Your task to perform on an android device: Show the shopping cart on ebay. Add alienware aurora to the cart on ebay, then select checkout. Image 0: 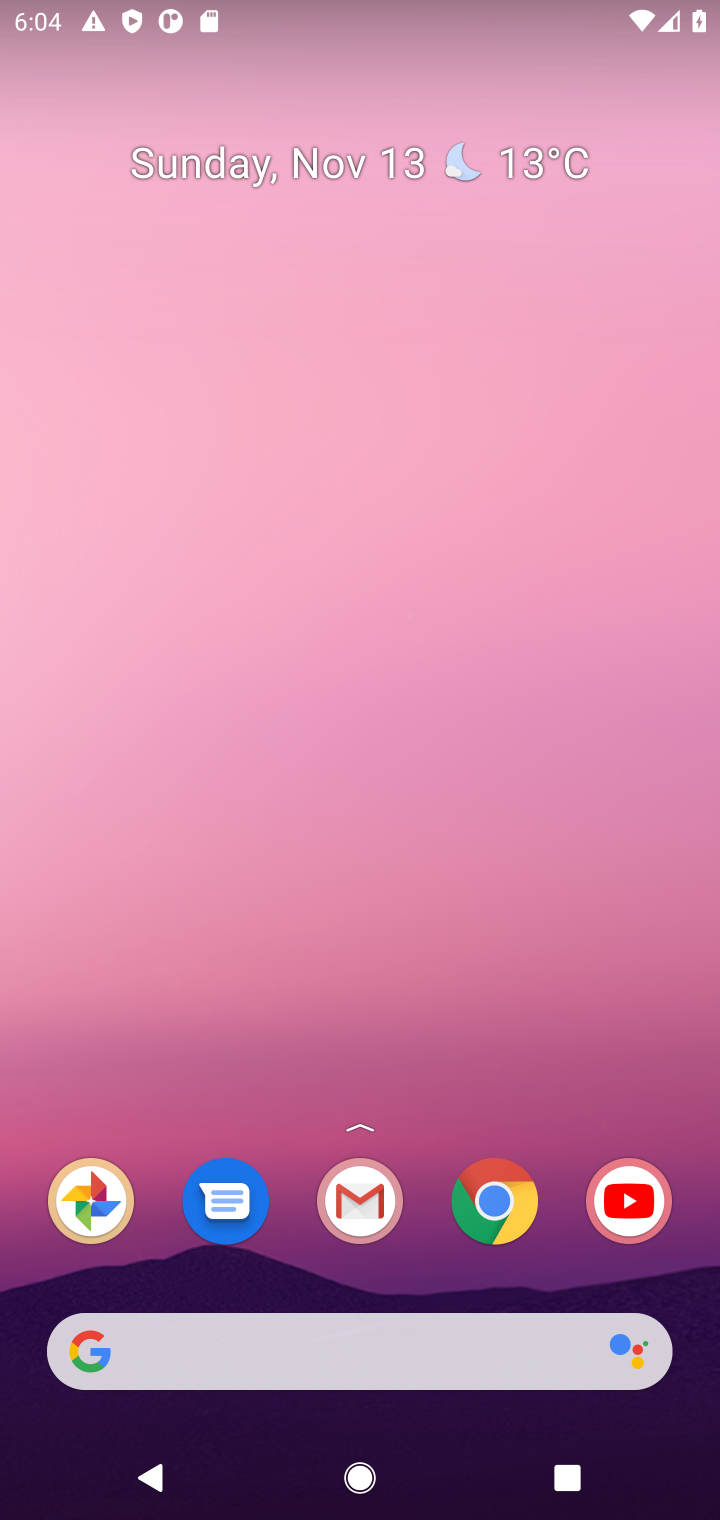
Step 0: drag from (426, 1287) to (364, 350)
Your task to perform on an android device: Show the shopping cart on ebay. Add alienware aurora to the cart on ebay, then select checkout. Image 1: 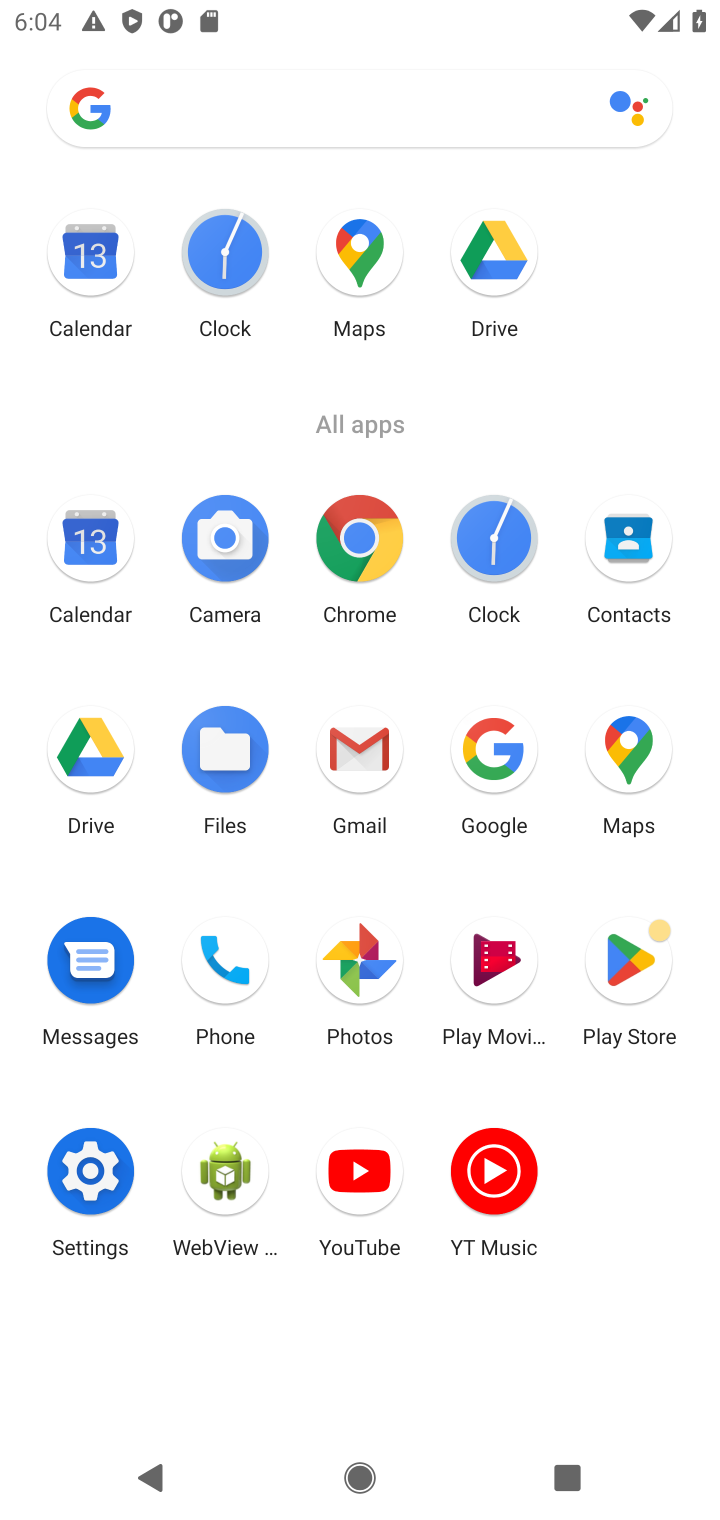
Step 1: click (361, 532)
Your task to perform on an android device: Show the shopping cart on ebay. Add alienware aurora to the cart on ebay, then select checkout. Image 2: 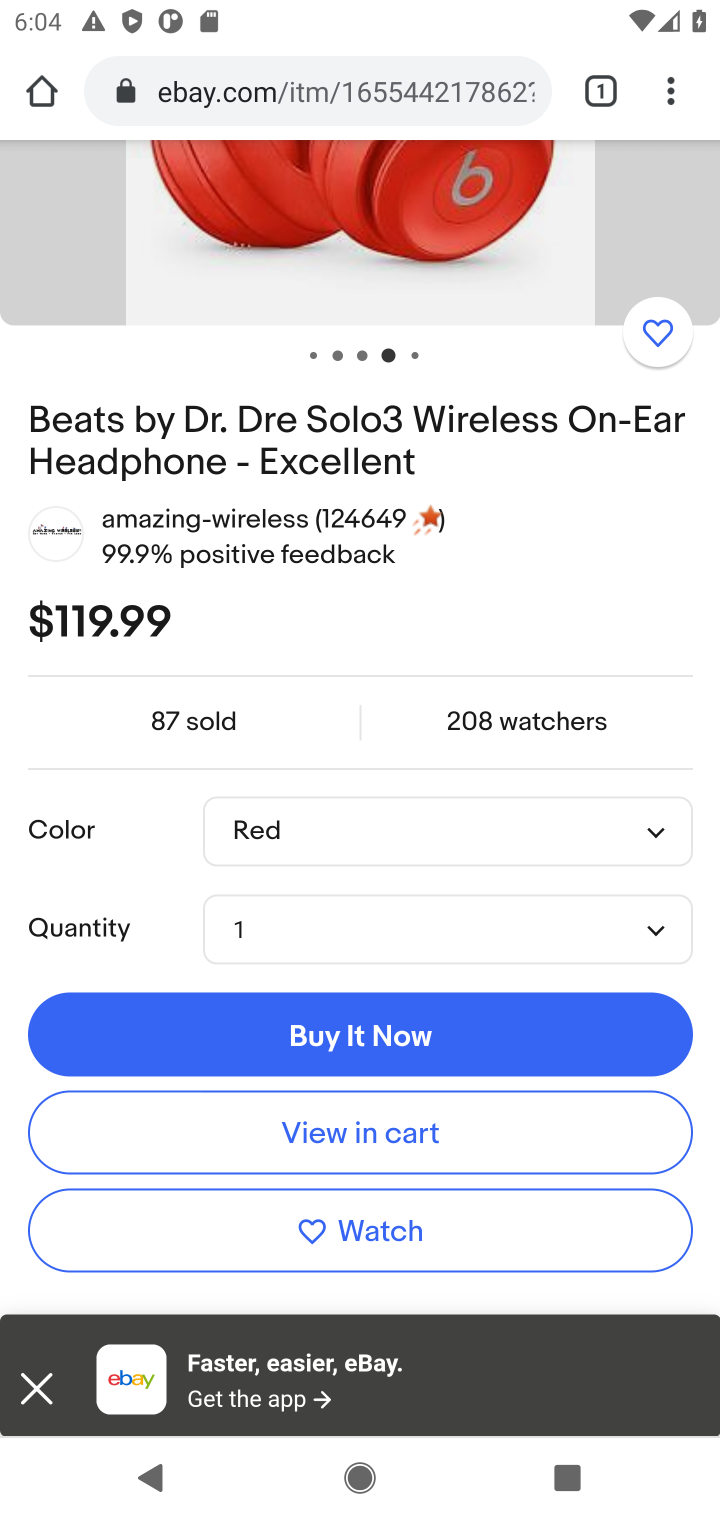
Step 2: click (438, 78)
Your task to perform on an android device: Show the shopping cart on ebay. Add alienware aurora to the cart on ebay, then select checkout. Image 3: 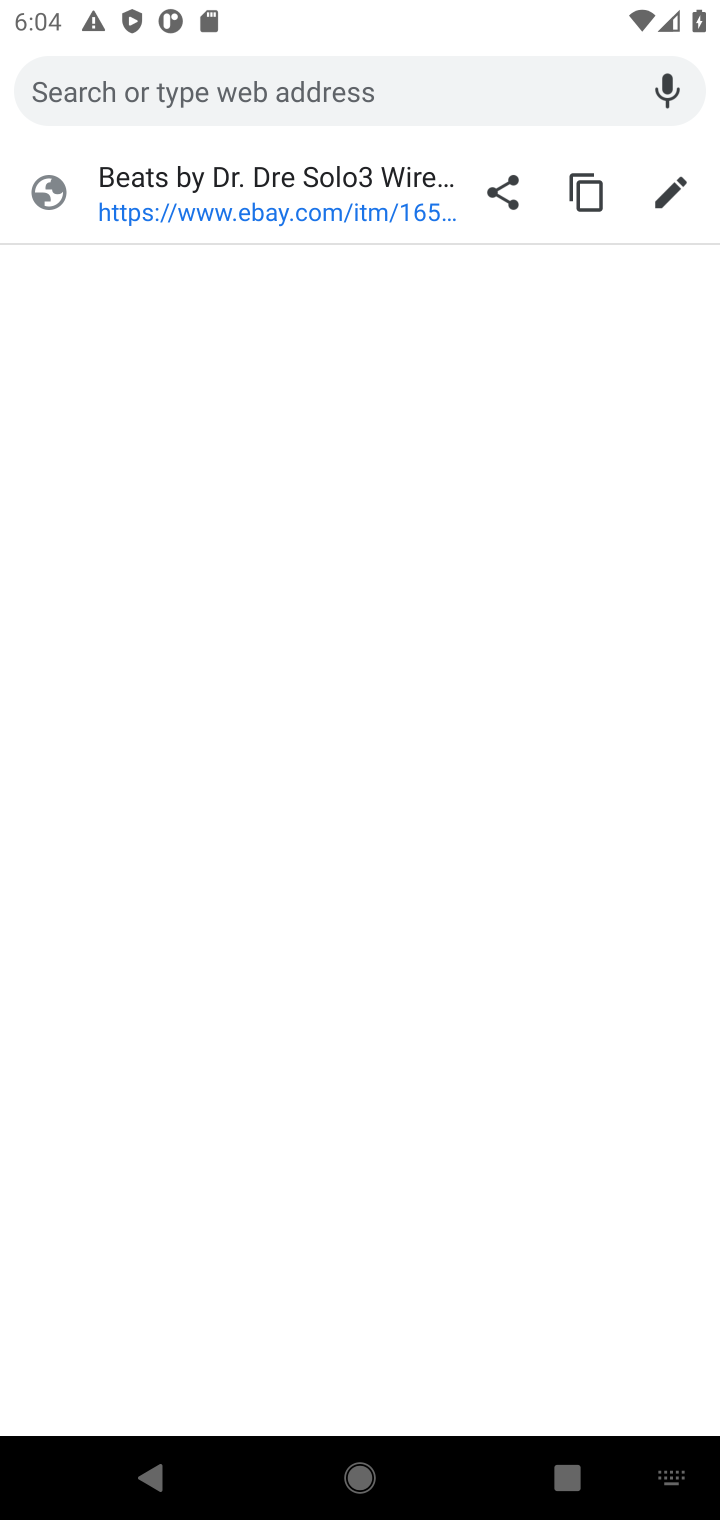
Step 3: type "ebay.com"
Your task to perform on an android device: Show the shopping cart on ebay. Add alienware aurora to the cart on ebay, then select checkout. Image 4: 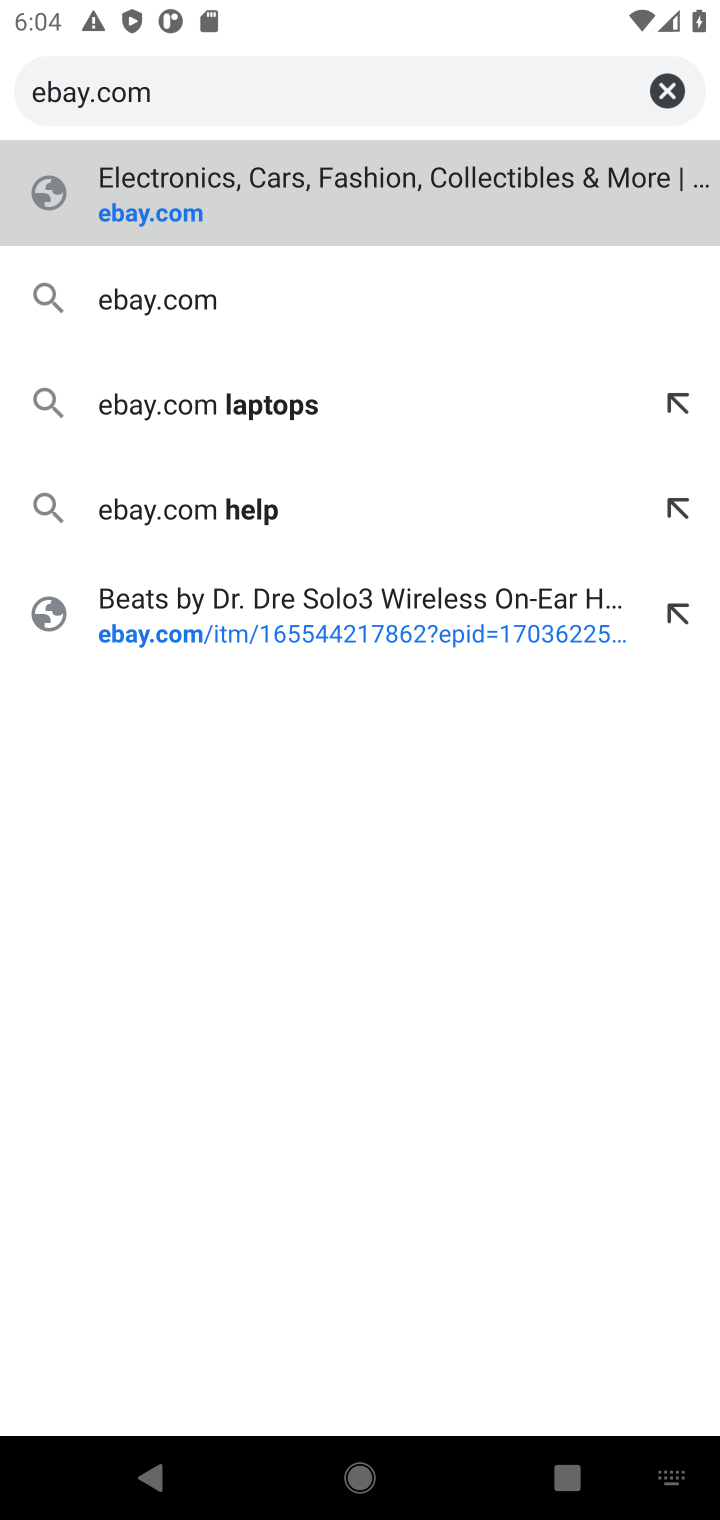
Step 4: press enter
Your task to perform on an android device: Show the shopping cart on ebay. Add alienware aurora to the cart on ebay, then select checkout. Image 5: 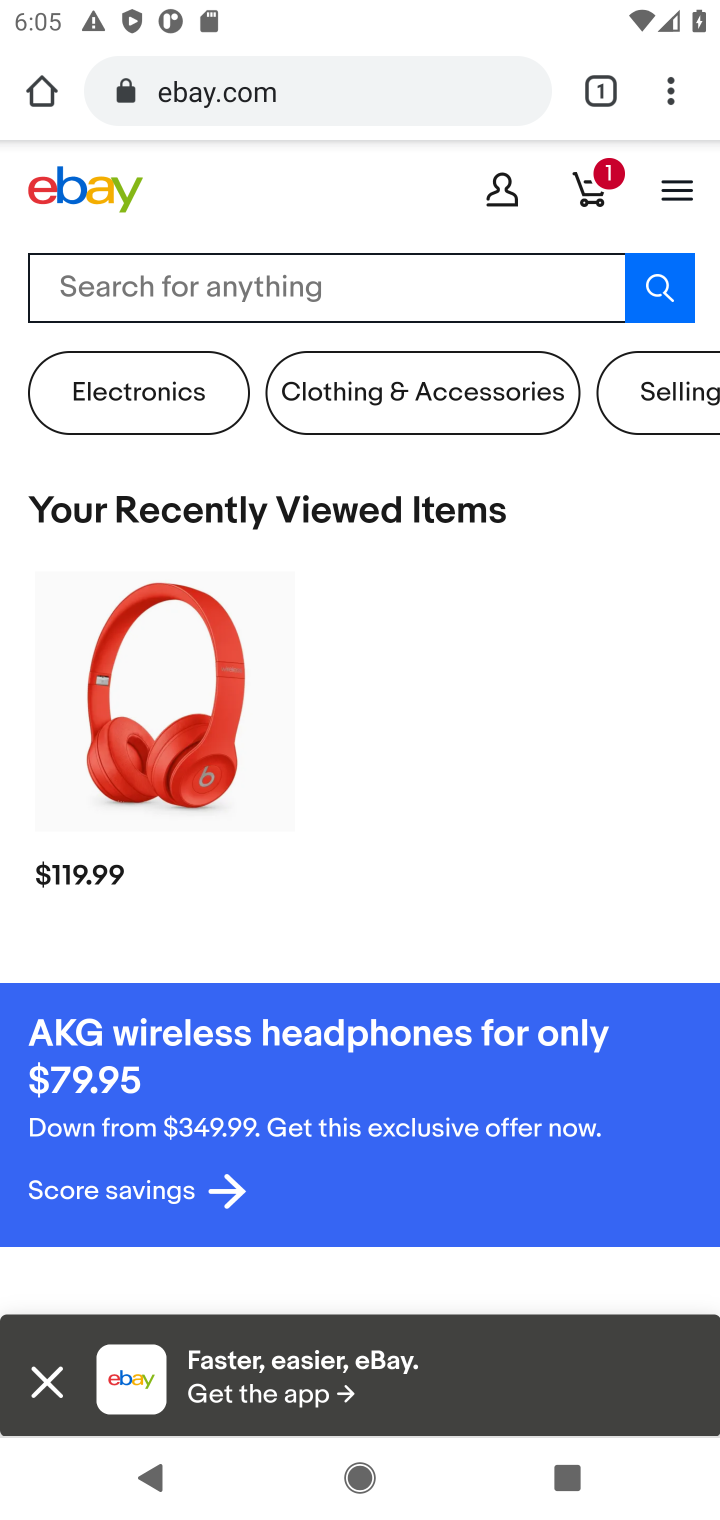
Step 5: click (317, 280)
Your task to perform on an android device: Show the shopping cart on ebay. Add alienware aurora to the cart on ebay, then select checkout. Image 6: 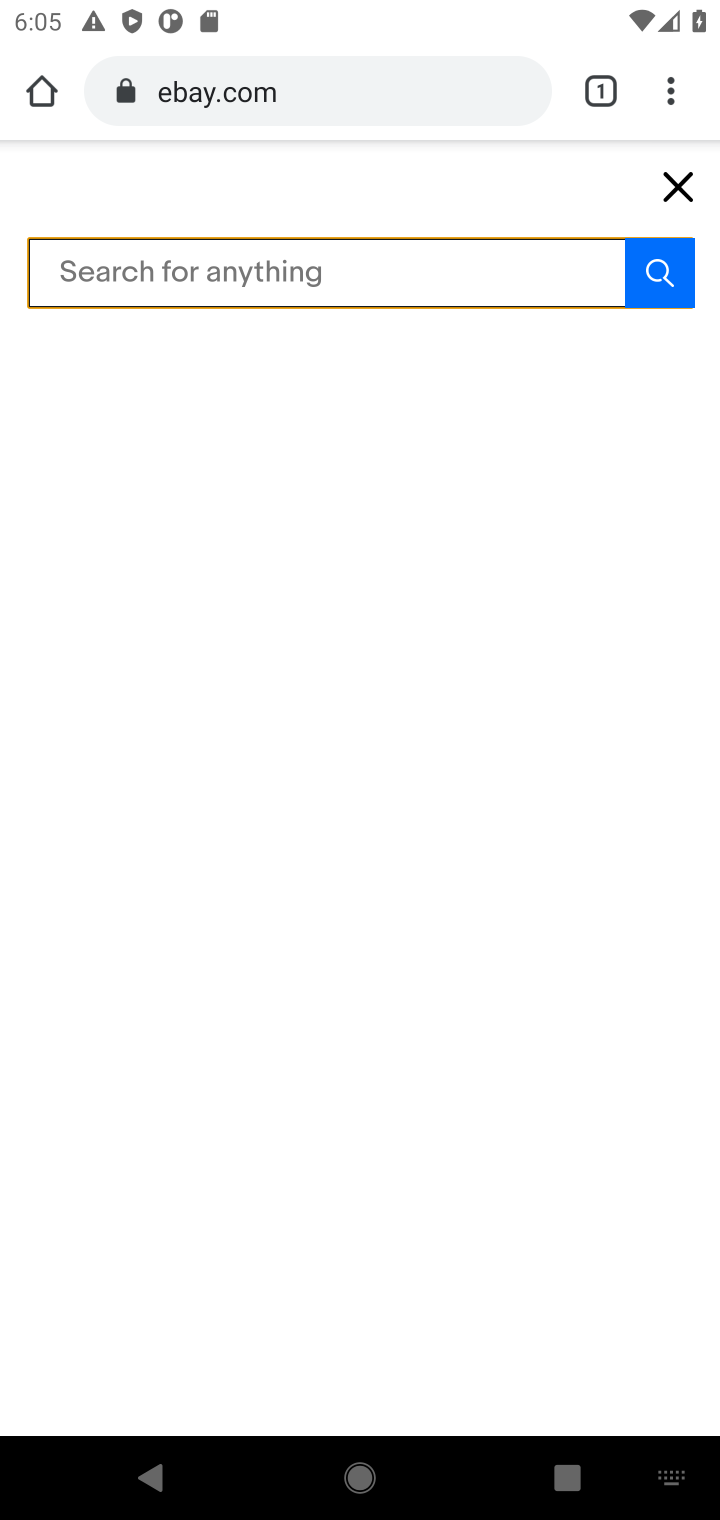
Step 6: type "alienware aurora"
Your task to perform on an android device: Show the shopping cart on ebay. Add alienware aurora to the cart on ebay, then select checkout. Image 7: 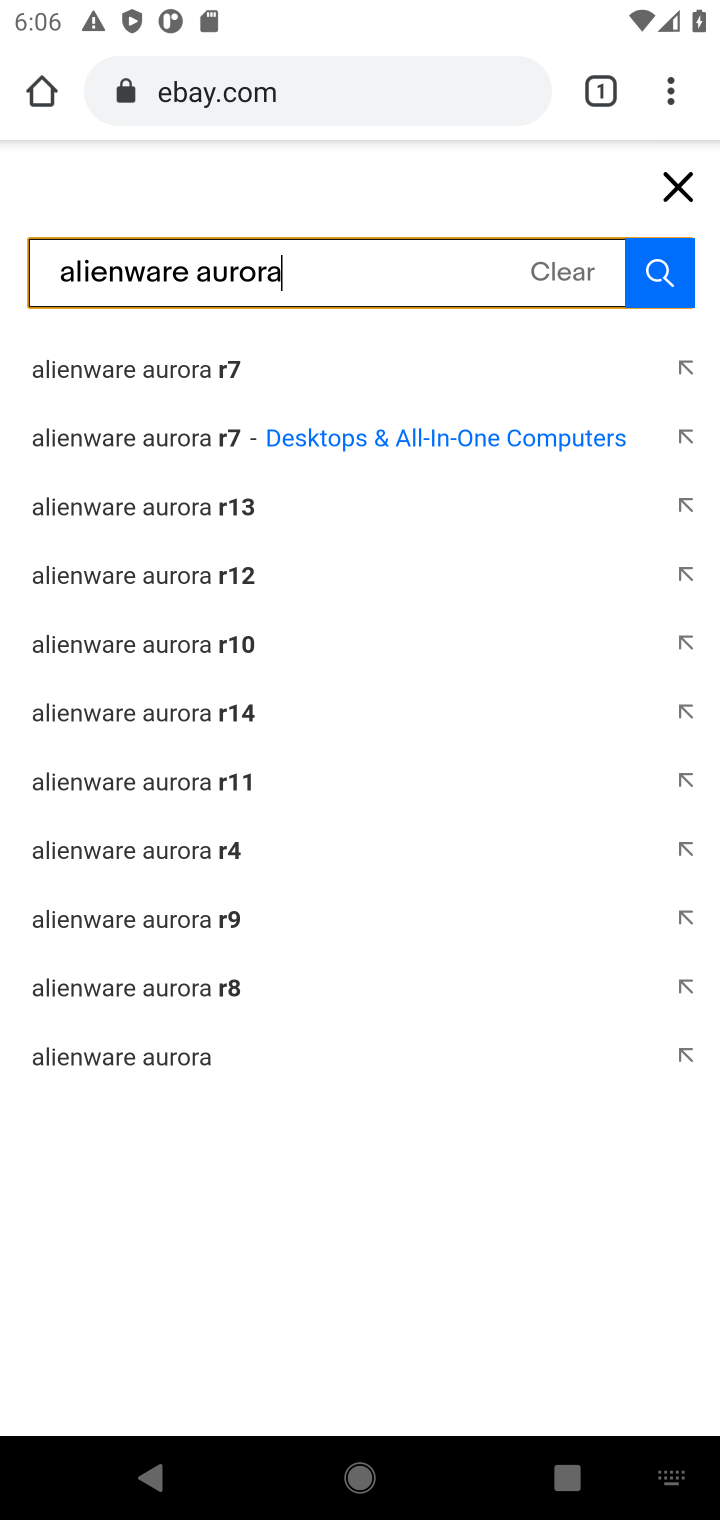
Step 7: click (662, 262)
Your task to perform on an android device: Show the shopping cart on ebay. Add alienware aurora to the cart on ebay, then select checkout. Image 8: 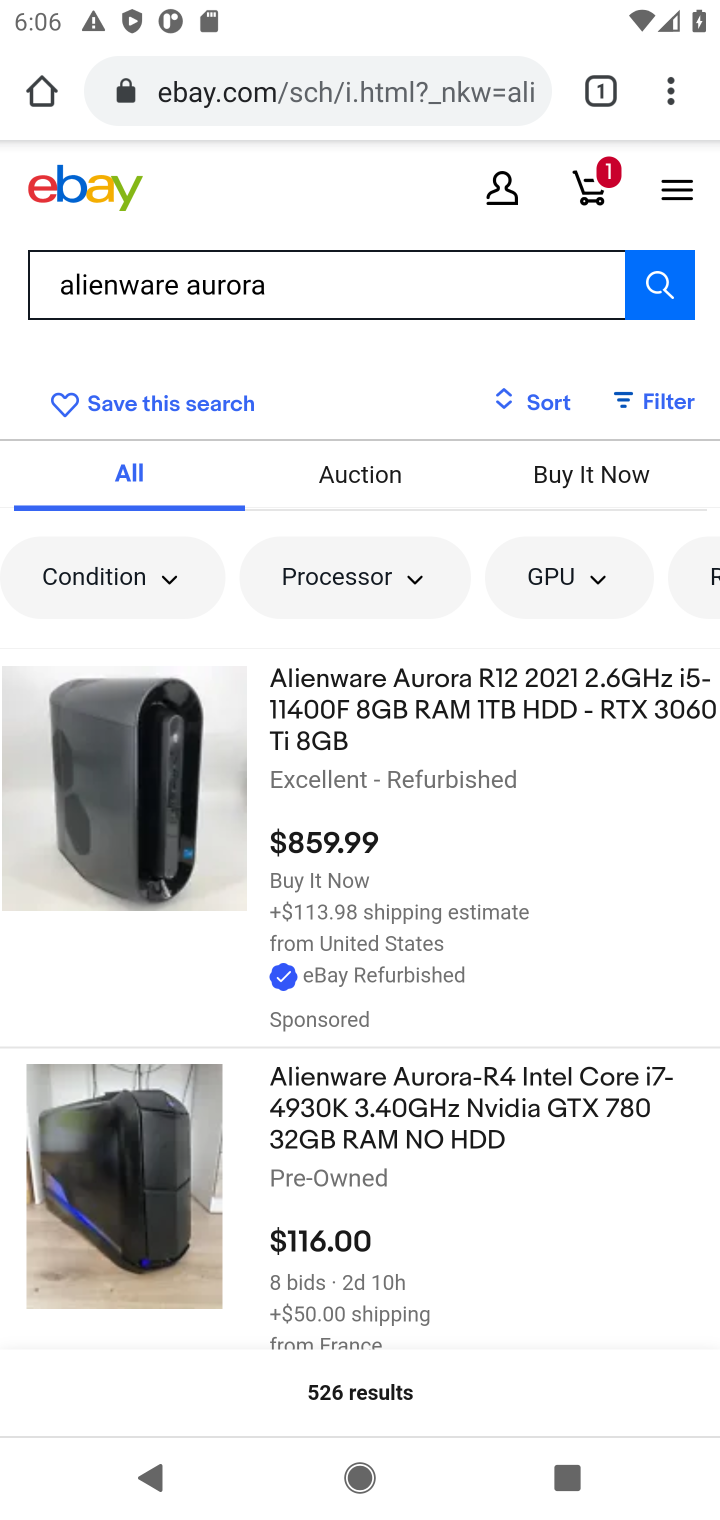
Step 8: click (602, 160)
Your task to perform on an android device: Show the shopping cart on ebay. Add alienware aurora to the cart on ebay, then select checkout. Image 9: 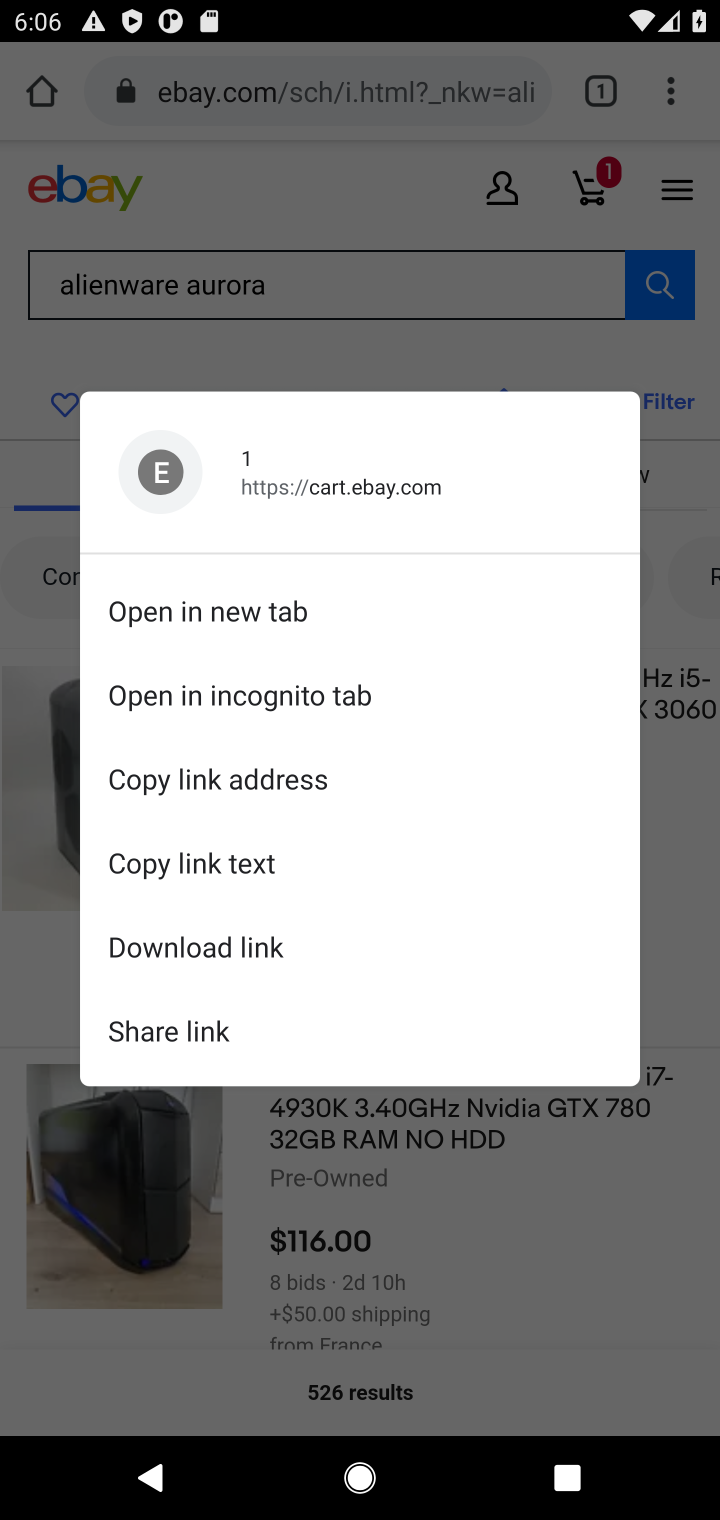
Step 9: click (560, 217)
Your task to perform on an android device: Show the shopping cart on ebay. Add alienware aurora to the cart on ebay, then select checkout. Image 10: 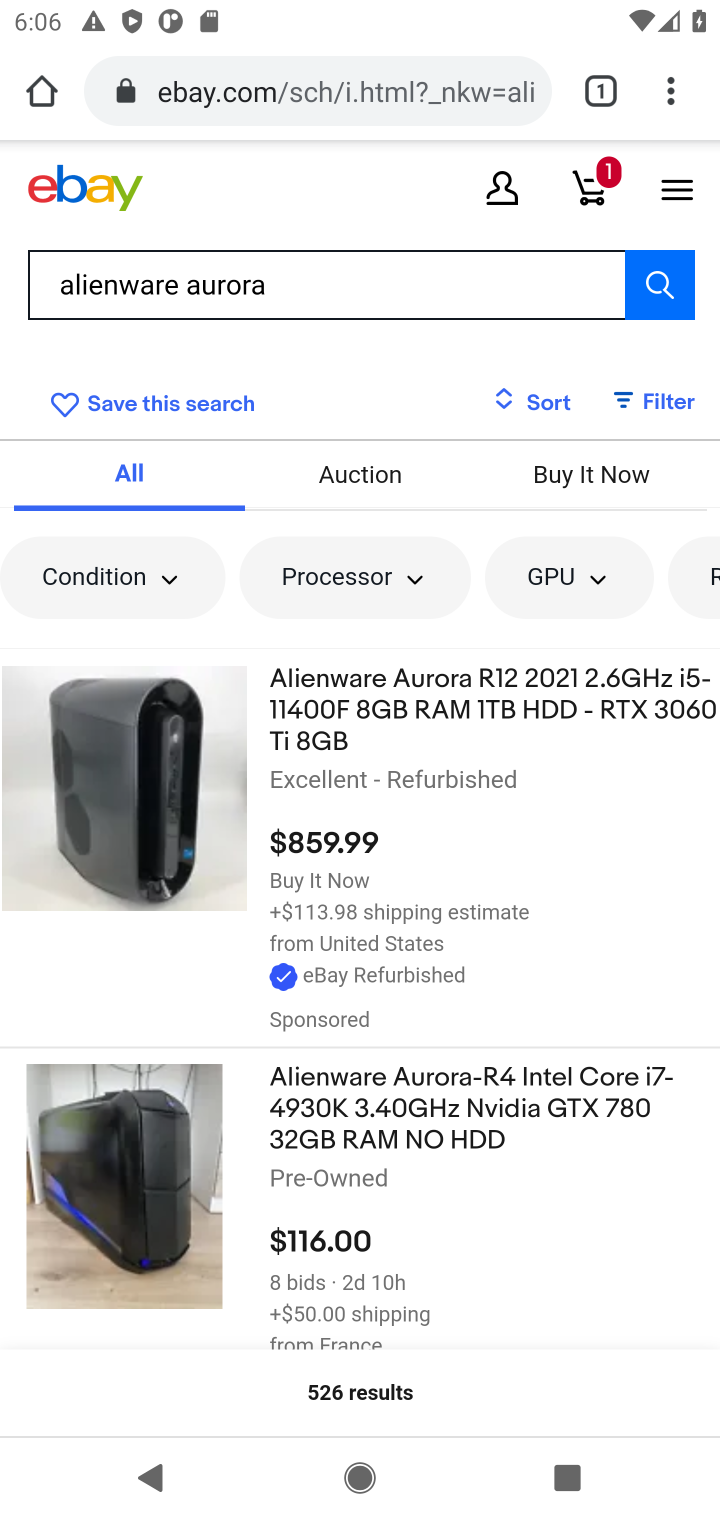
Step 10: click (594, 182)
Your task to perform on an android device: Show the shopping cart on ebay. Add alienware aurora to the cart on ebay, then select checkout. Image 11: 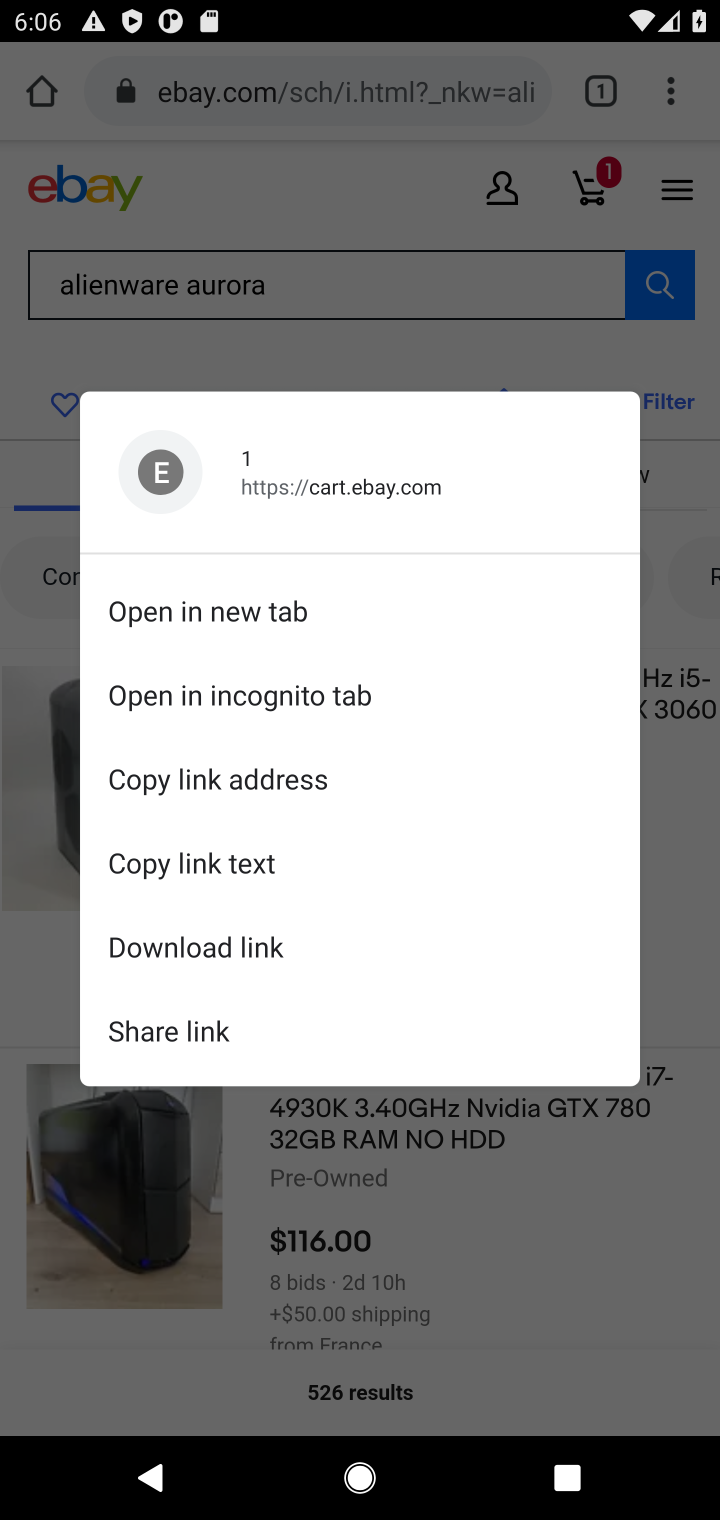
Step 11: click (594, 182)
Your task to perform on an android device: Show the shopping cart on ebay. Add alienware aurora to the cart on ebay, then select checkout. Image 12: 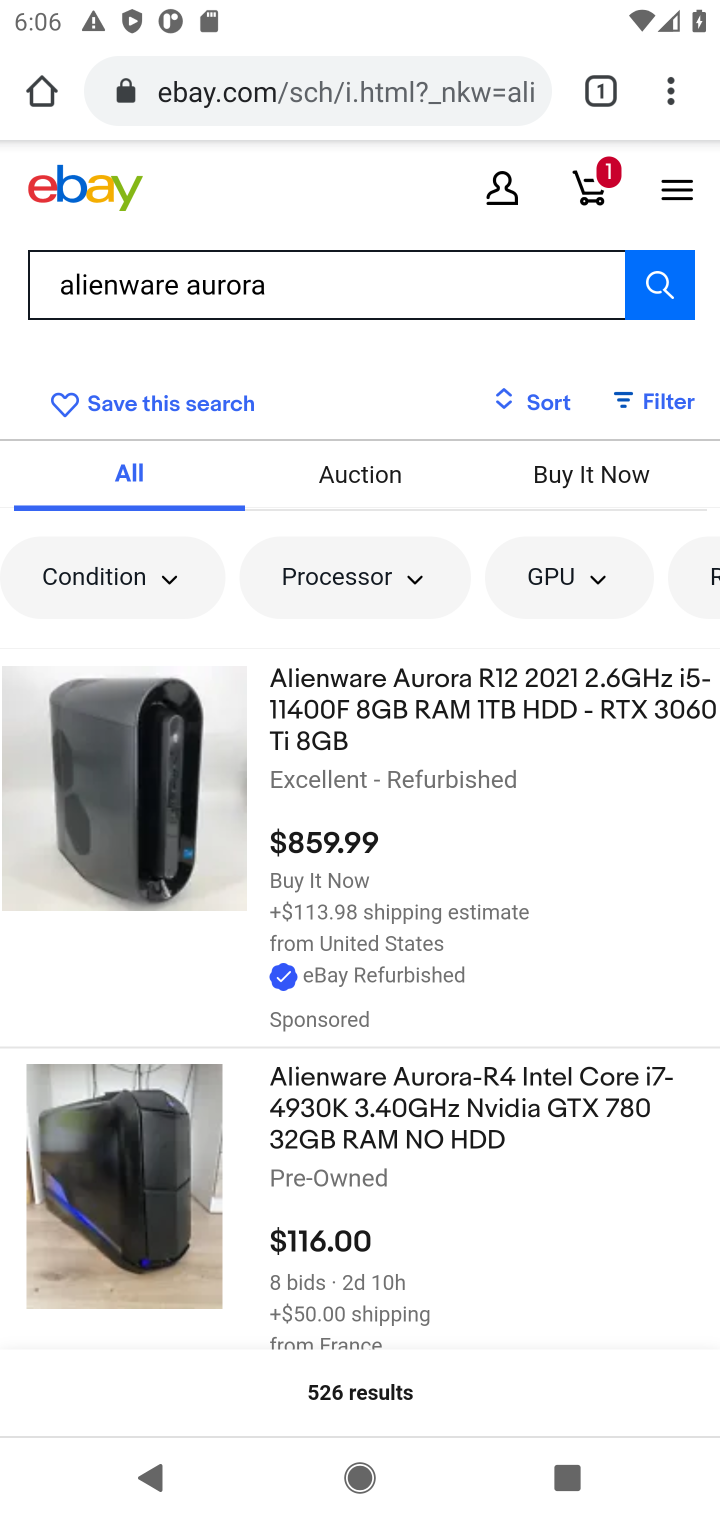
Step 12: click (602, 188)
Your task to perform on an android device: Show the shopping cart on ebay. Add alienware aurora to the cart on ebay, then select checkout. Image 13: 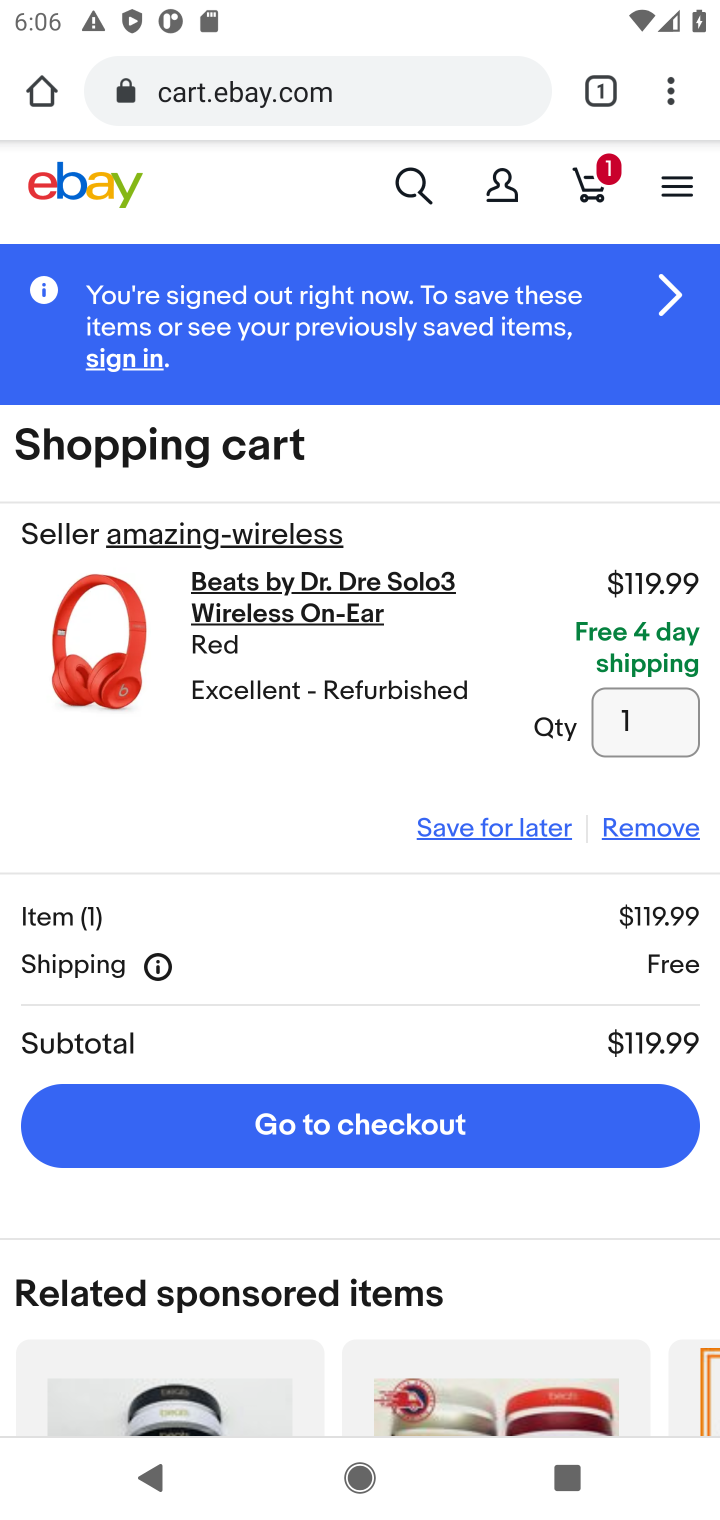
Step 13: click (421, 175)
Your task to perform on an android device: Show the shopping cart on ebay. Add alienware aurora to the cart on ebay, then select checkout. Image 14: 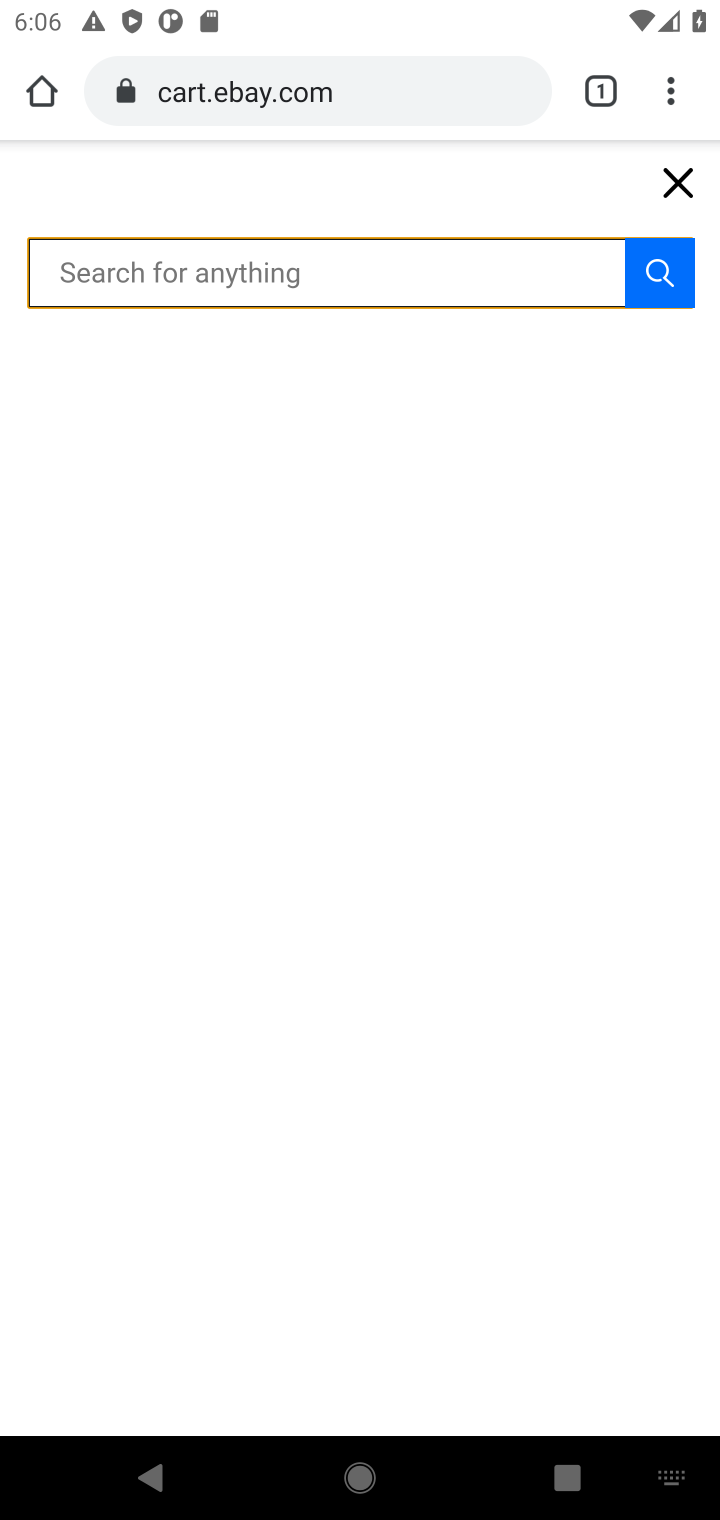
Step 14: click (375, 283)
Your task to perform on an android device: Show the shopping cart on ebay. Add alienware aurora to the cart on ebay, then select checkout. Image 15: 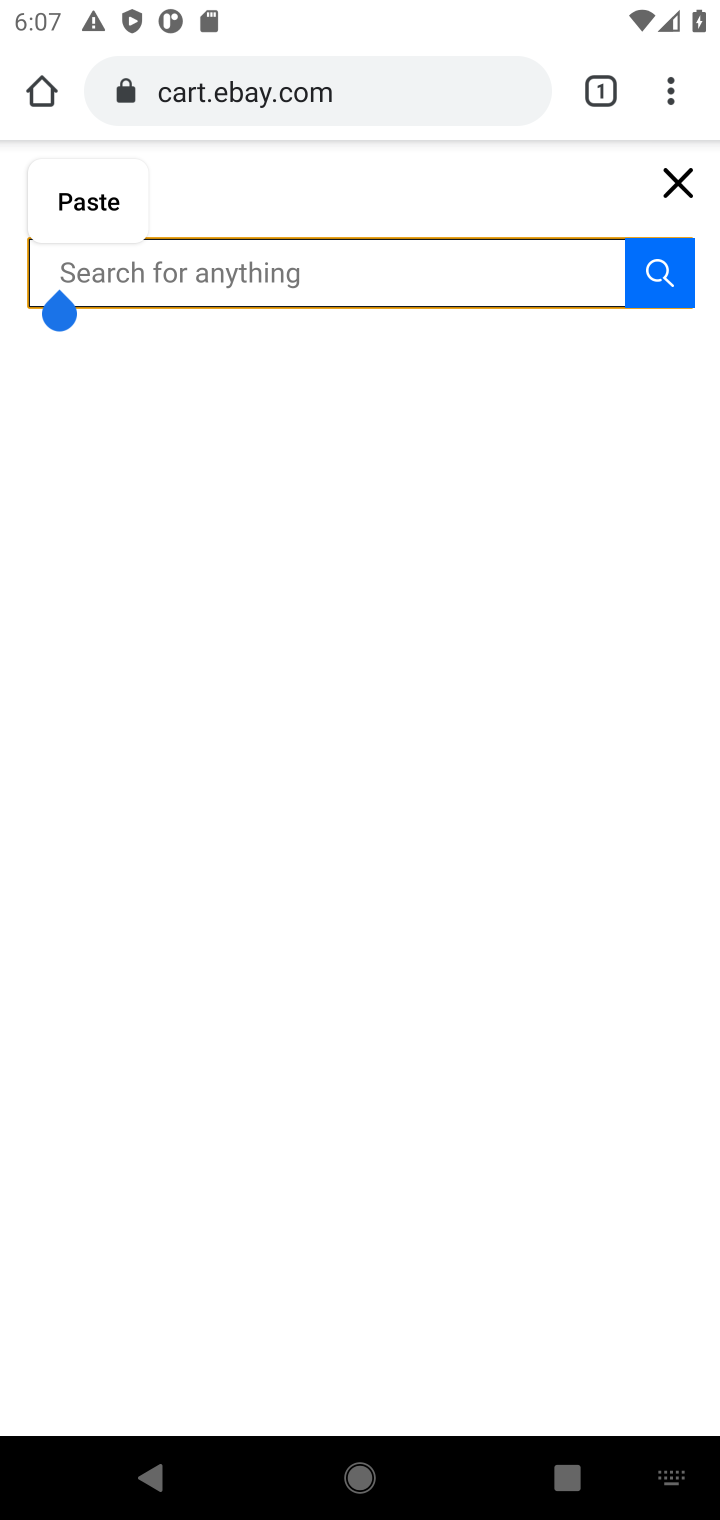
Step 15: type "alienware aurora"
Your task to perform on an android device: Show the shopping cart on ebay. Add alienware aurora to the cart on ebay, then select checkout. Image 16: 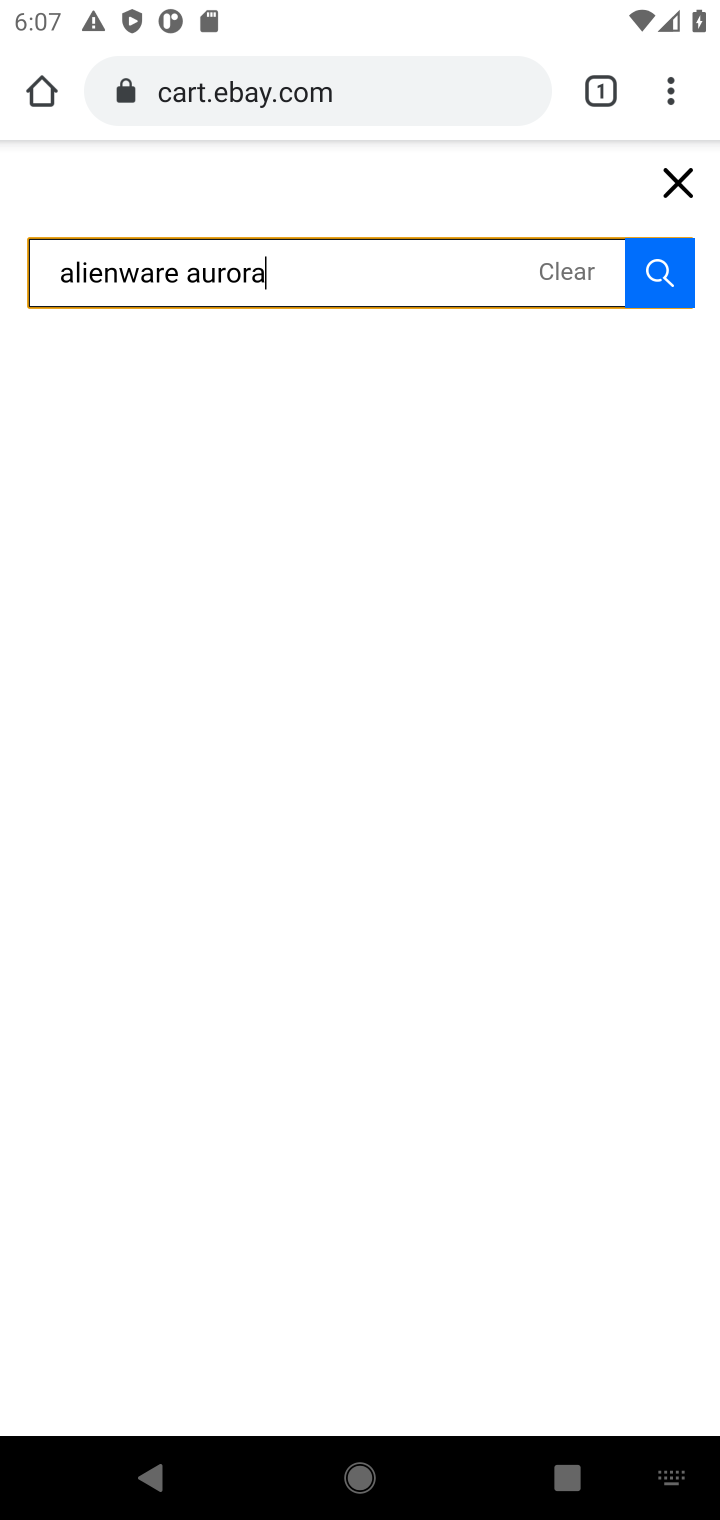
Step 16: press enter
Your task to perform on an android device: Show the shopping cart on ebay. Add alienware aurora to the cart on ebay, then select checkout. Image 17: 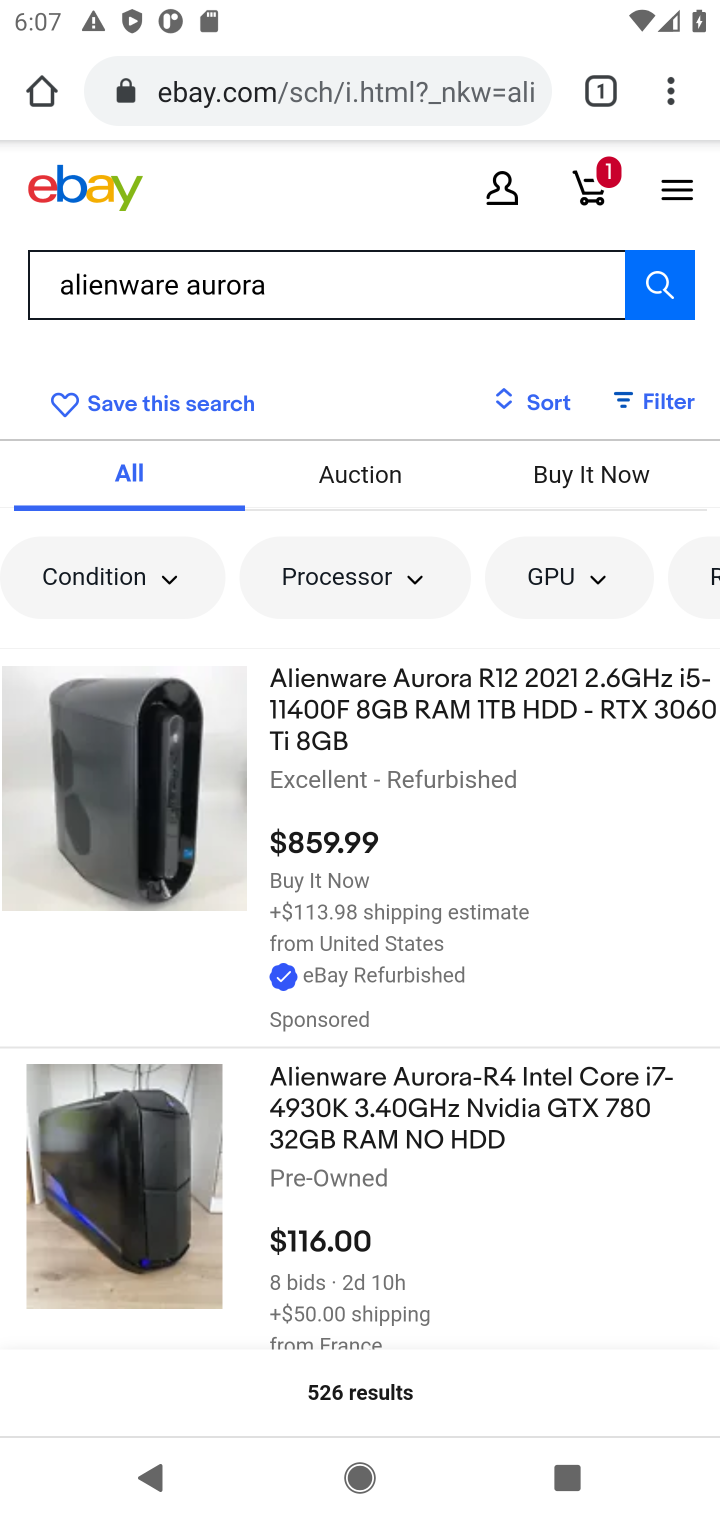
Step 17: drag from (484, 1311) to (495, 778)
Your task to perform on an android device: Show the shopping cart on ebay. Add alienware aurora to the cart on ebay, then select checkout. Image 18: 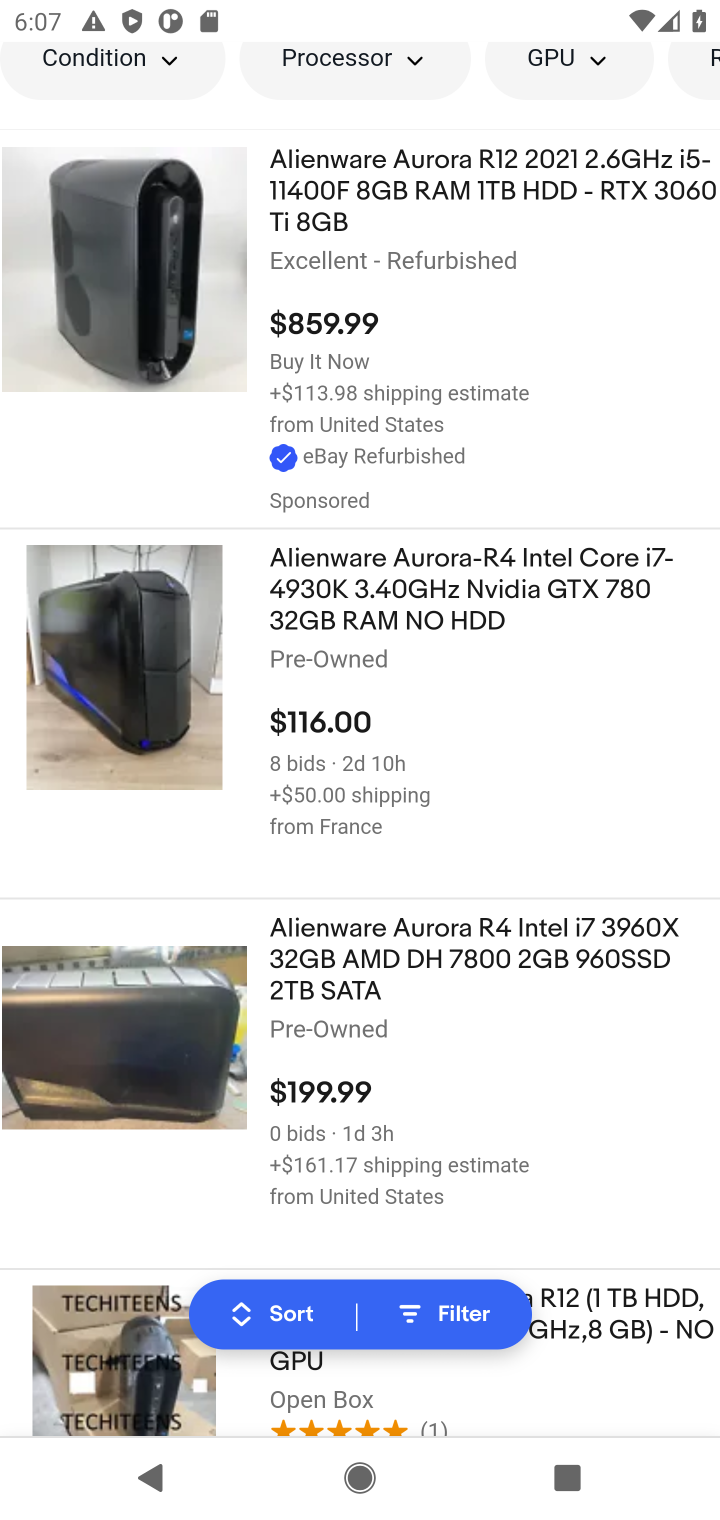
Step 18: click (398, 594)
Your task to perform on an android device: Show the shopping cart on ebay. Add alienware aurora to the cart on ebay, then select checkout. Image 19: 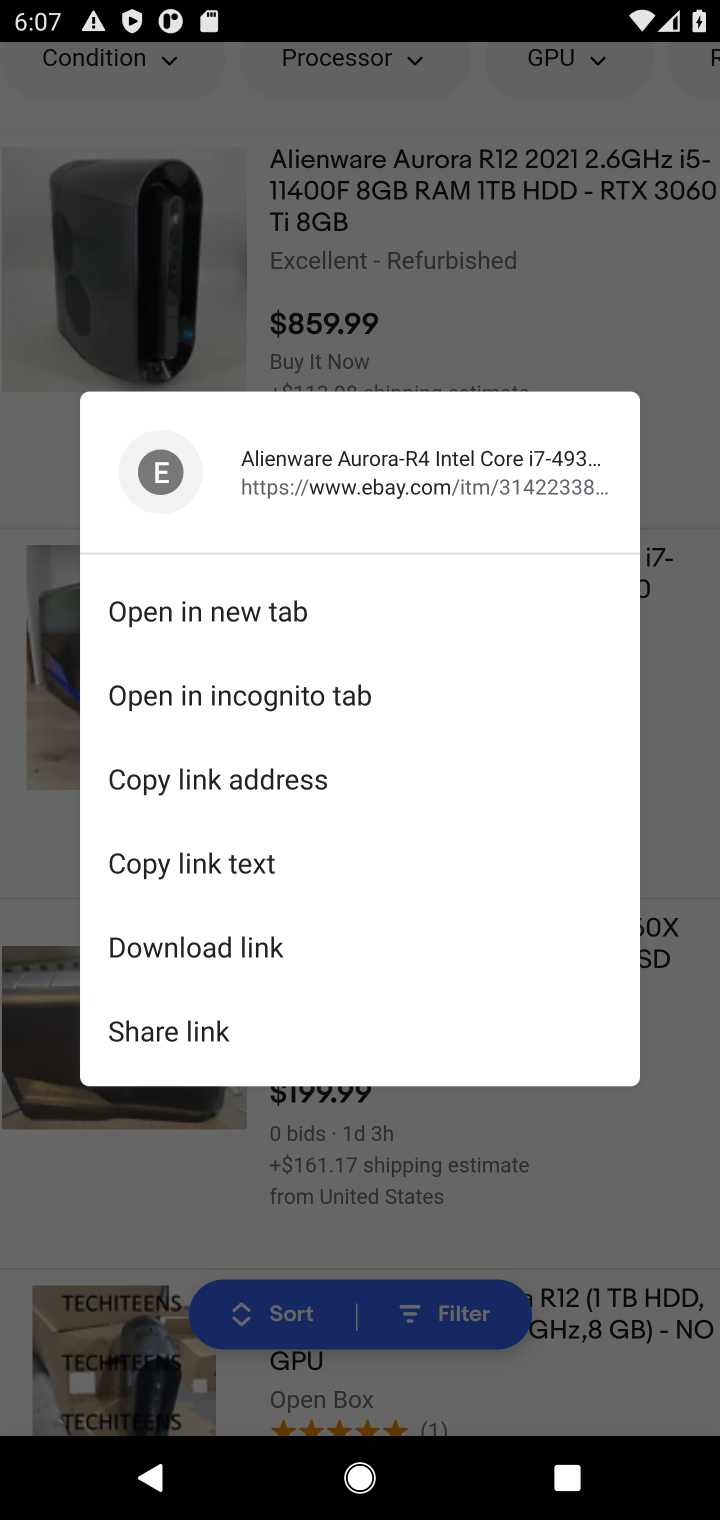
Step 19: click (420, 283)
Your task to perform on an android device: Show the shopping cart on ebay. Add alienware aurora to the cart on ebay, then select checkout. Image 20: 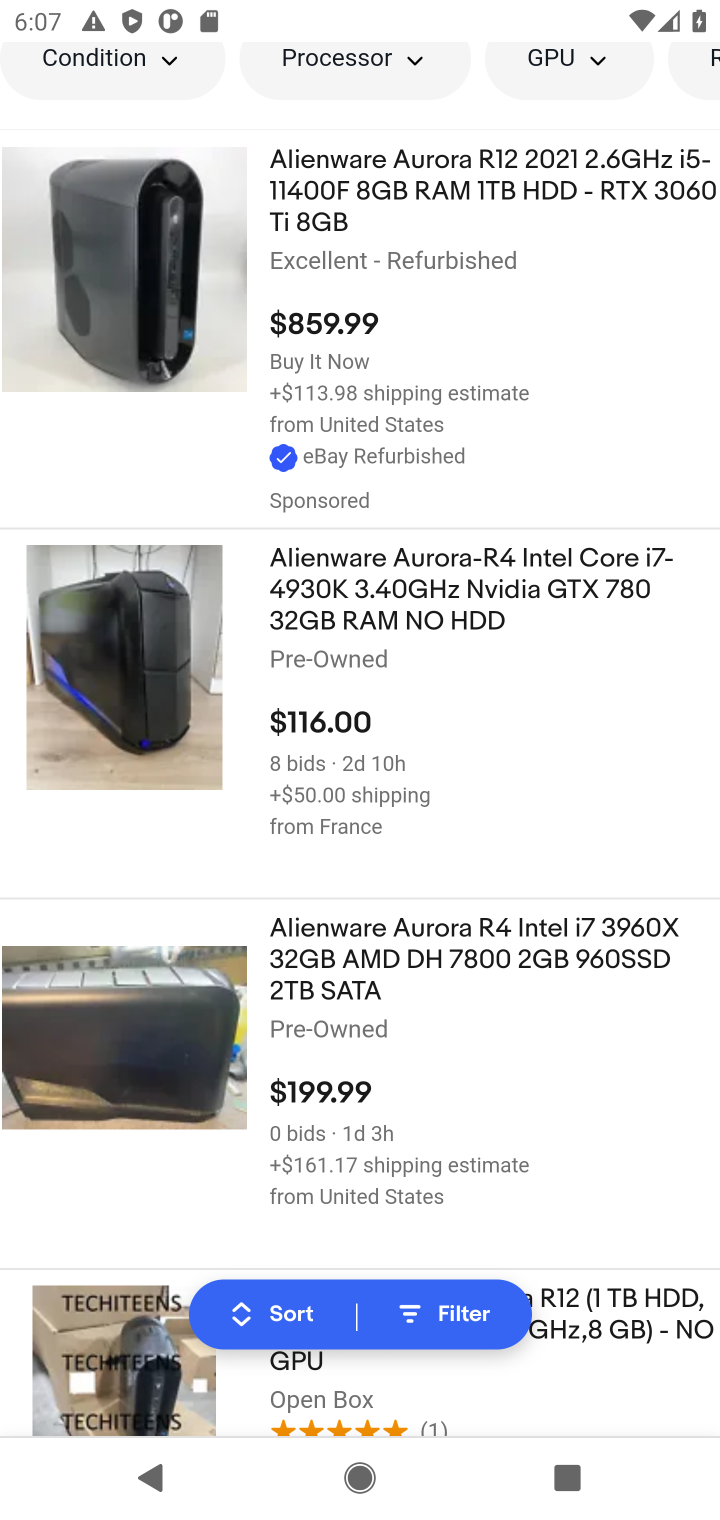
Step 20: click (398, 592)
Your task to perform on an android device: Show the shopping cart on ebay. Add alienware aurora to the cart on ebay, then select checkout. Image 21: 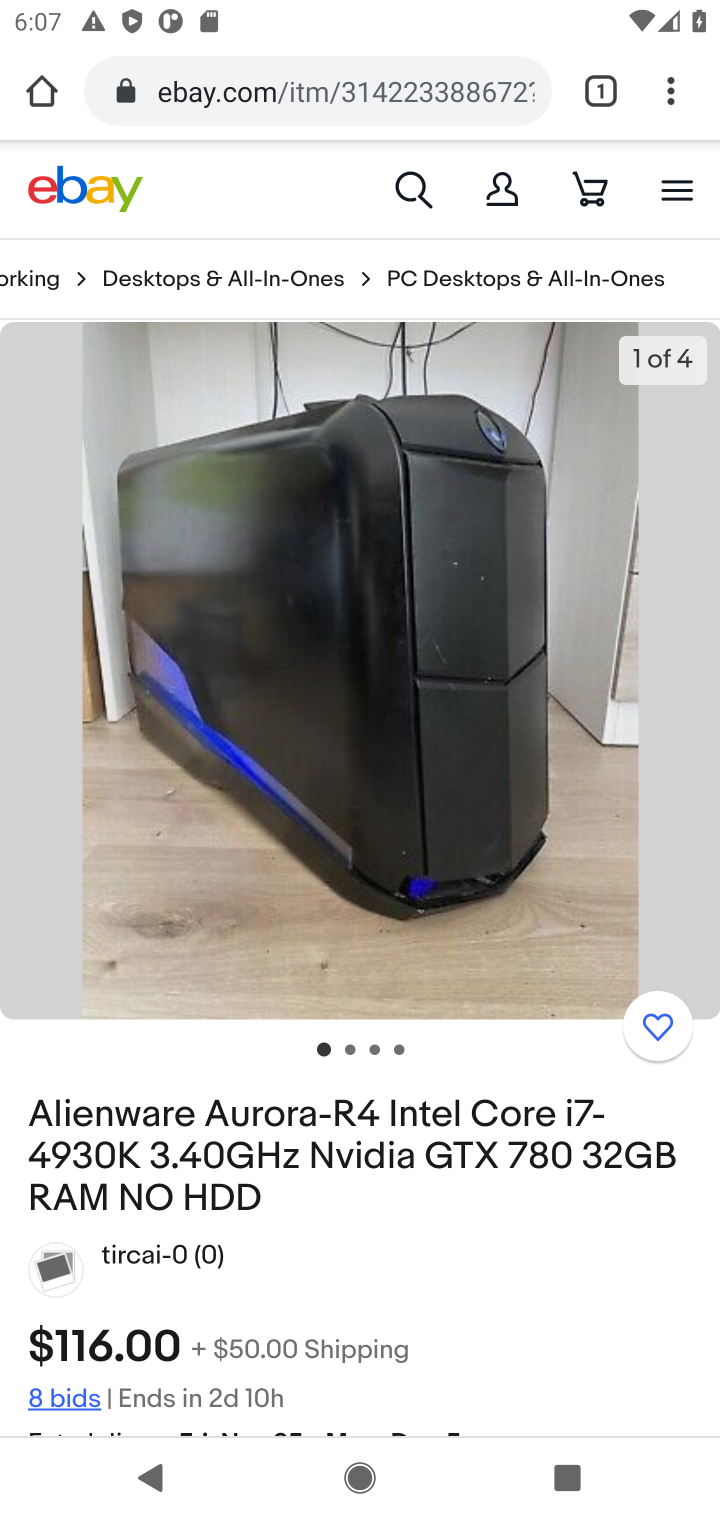
Step 21: task complete